Your task to perform on an android device: toggle location history Image 0: 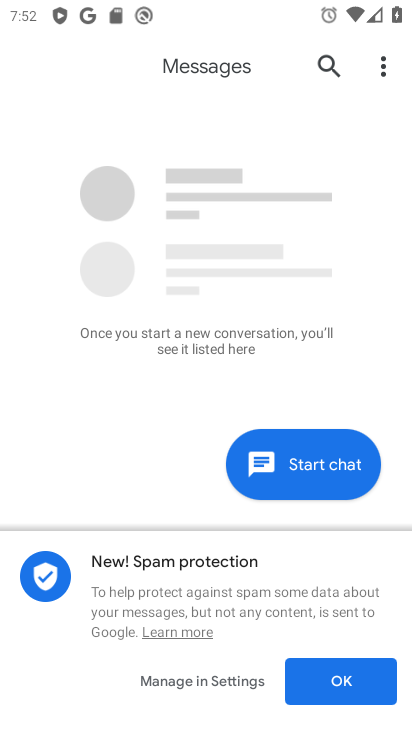
Step 0: press home button
Your task to perform on an android device: toggle location history Image 1: 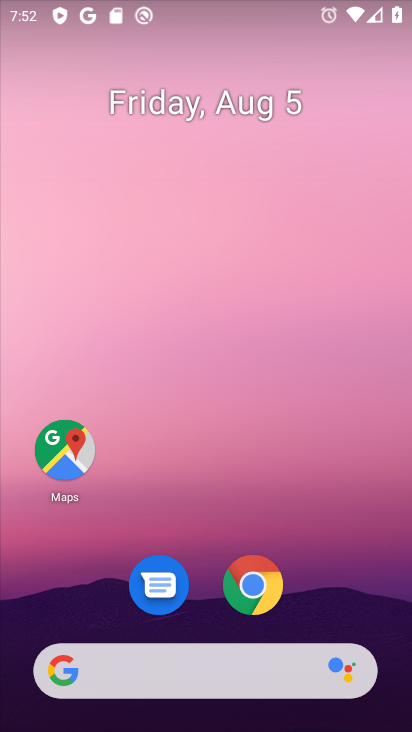
Step 1: drag from (311, 562) to (323, 64)
Your task to perform on an android device: toggle location history Image 2: 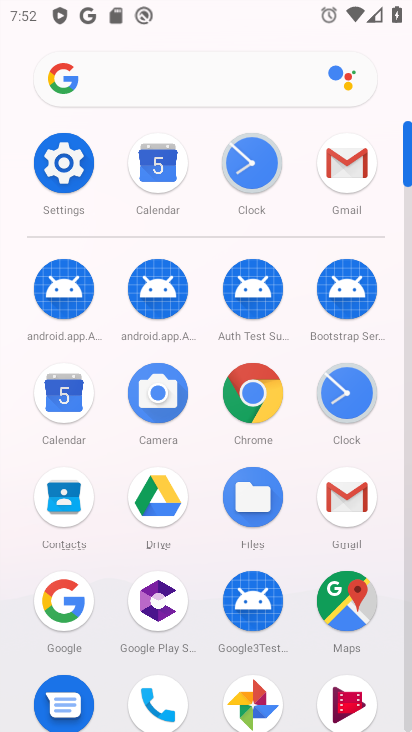
Step 2: click (62, 158)
Your task to perform on an android device: toggle location history Image 3: 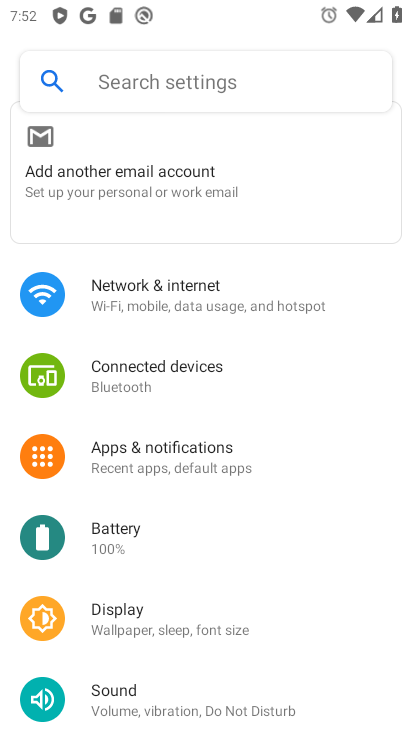
Step 3: drag from (254, 647) to (243, 151)
Your task to perform on an android device: toggle location history Image 4: 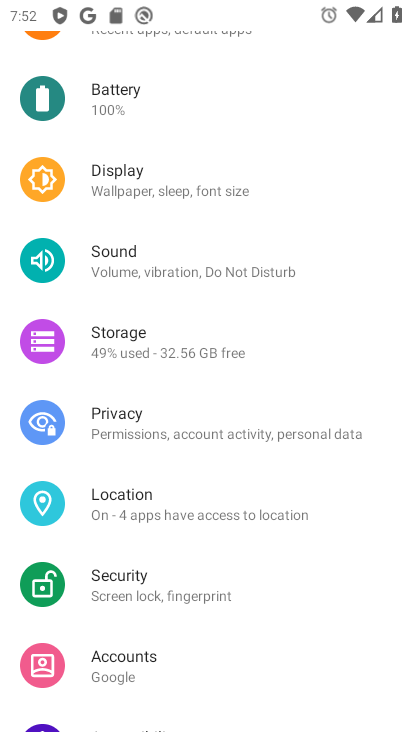
Step 4: click (201, 493)
Your task to perform on an android device: toggle location history Image 5: 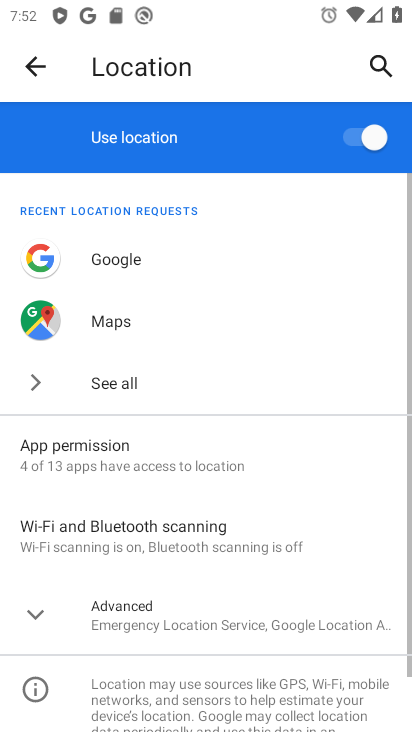
Step 5: click (33, 606)
Your task to perform on an android device: toggle location history Image 6: 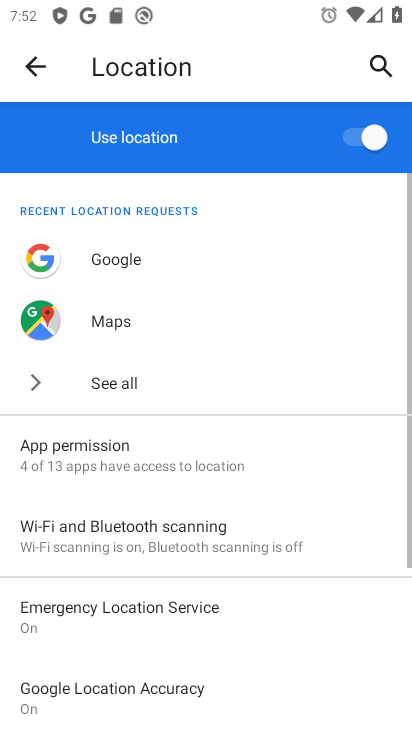
Step 6: drag from (252, 517) to (277, 197)
Your task to perform on an android device: toggle location history Image 7: 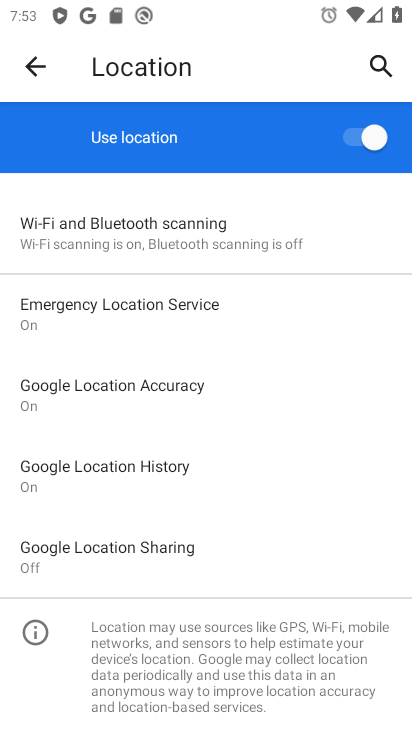
Step 7: click (152, 470)
Your task to perform on an android device: toggle location history Image 8: 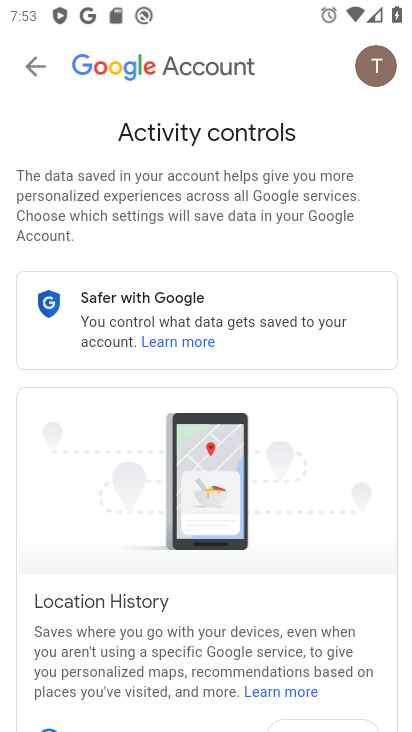
Step 8: drag from (306, 511) to (315, 69)
Your task to perform on an android device: toggle location history Image 9: 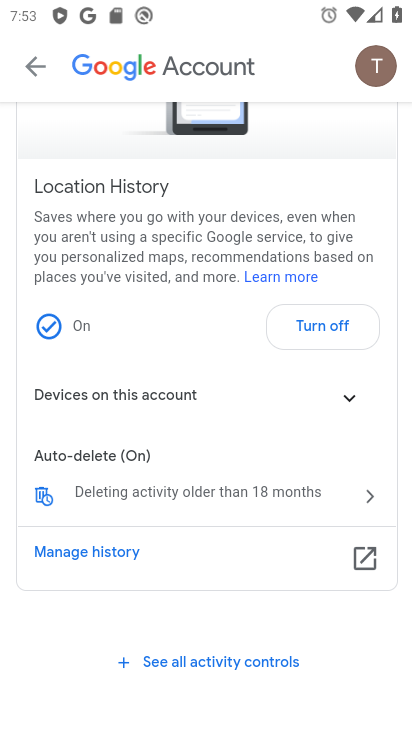
Step 9: click (328, 326)
Your task to perform on an android device: toggle location history Image 10: 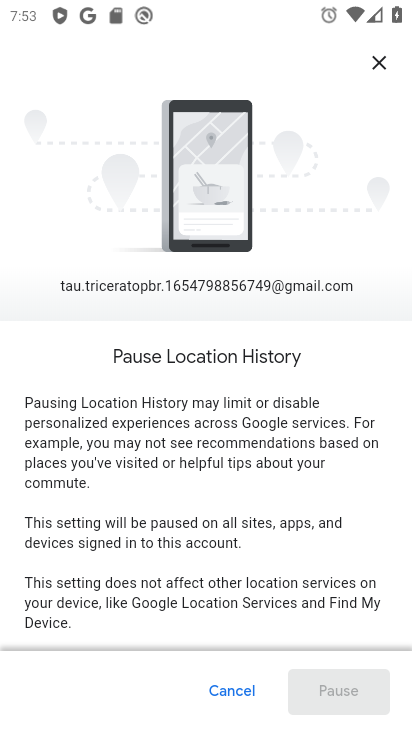
Step 10: drag from (242, 549) to (274, 12)
Your task to perform on an android device: toggle location history Image 11: 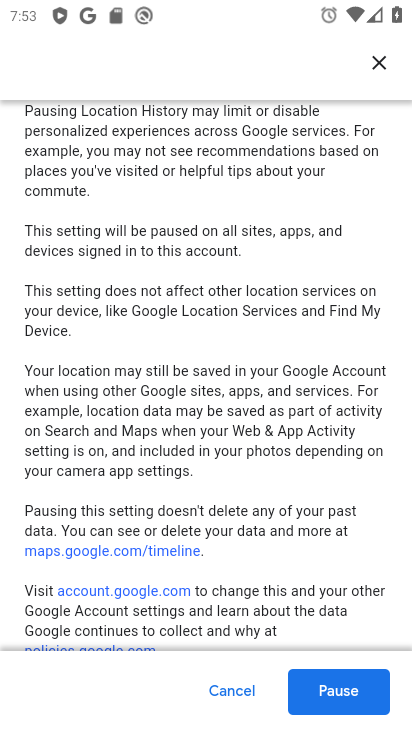
Step 11: click (358, 690)
Your task to perform on an android device: toggle location history Image 12: 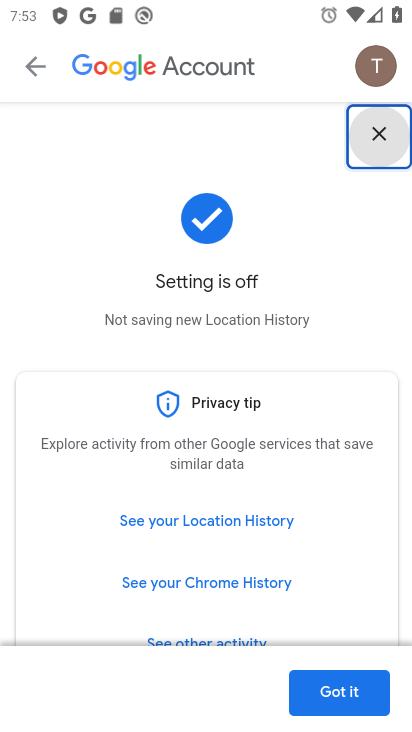
Step 12: click (358, 689)
Your task to perform on an android device: toggle location history Image 13: 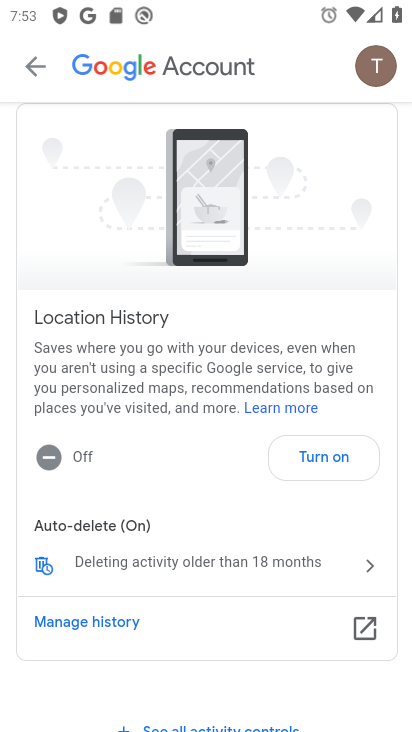
Step 13: task complete